Your task to perform on an android device: Clear the shopping cart on target.com. Image 0: 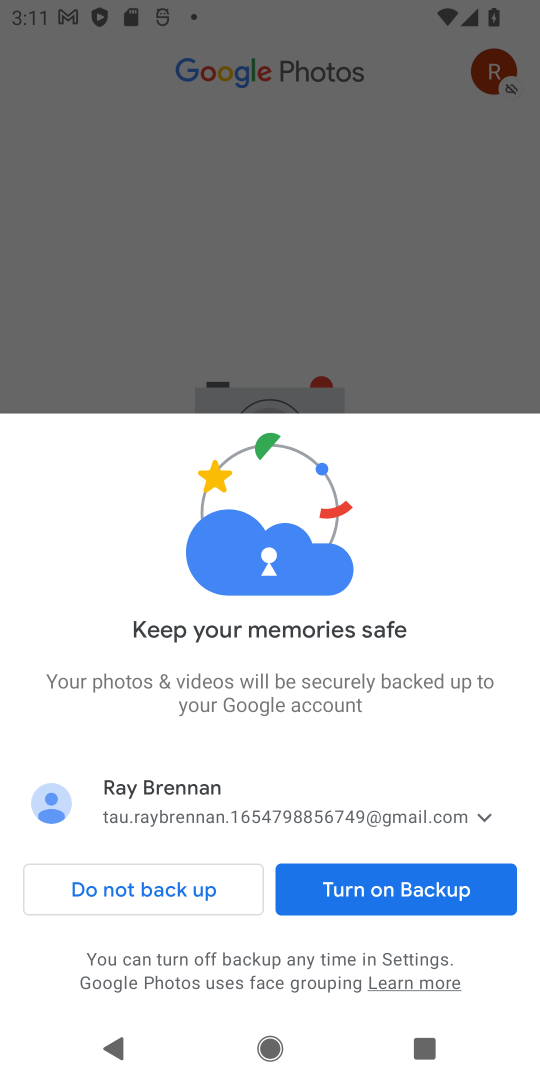
Step 0: press home button
Your task to perform on an android device: Clear the shopping cart on target.com. Image 1: 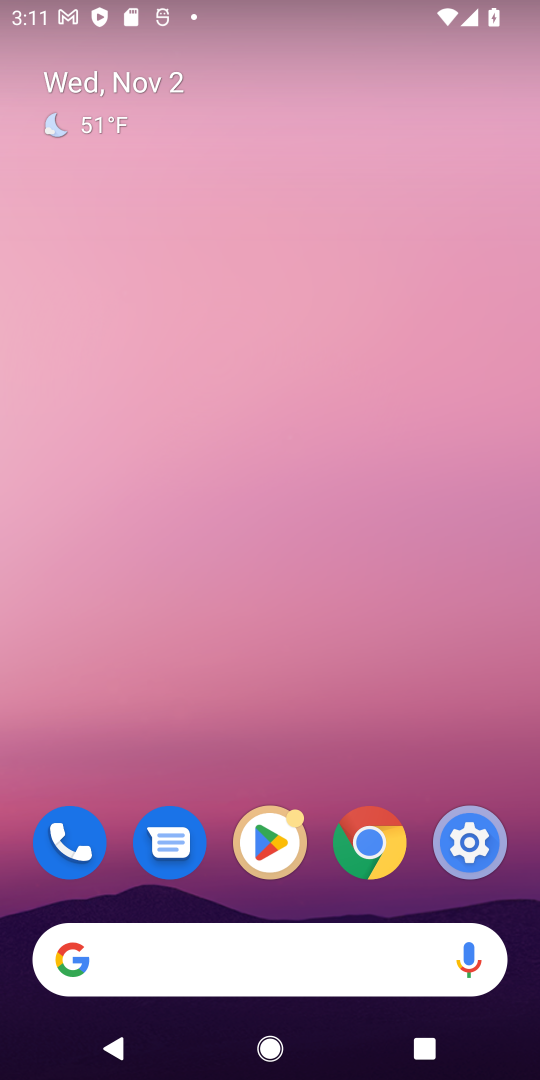
Step 1: click (258, 940)
Your task to perform on an android device: Clear the shopping cart on target.com. Image 2: 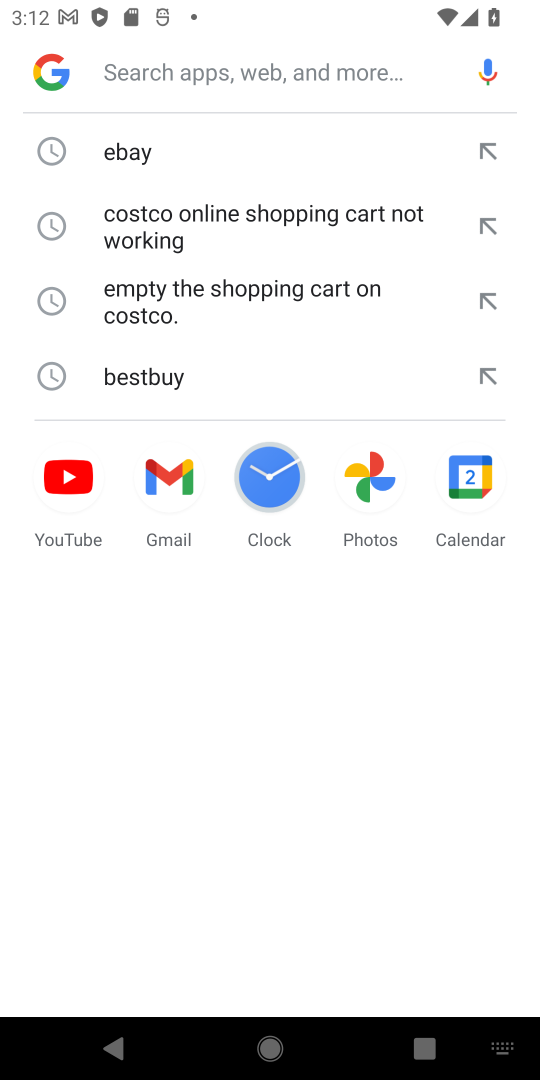
Step 2: type "target"
Your task to perform on an android device: Clear the shopping cart on target.com. Image 3: 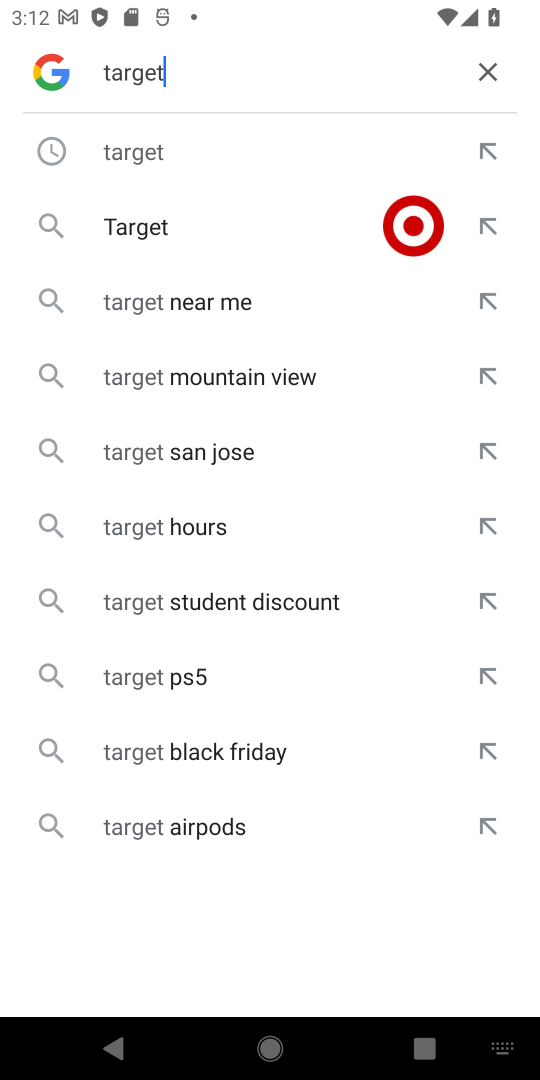
Step 3: click (135, 225)
Your task to perform on an android device: Clear the shopping cart on target.com. Image 4: 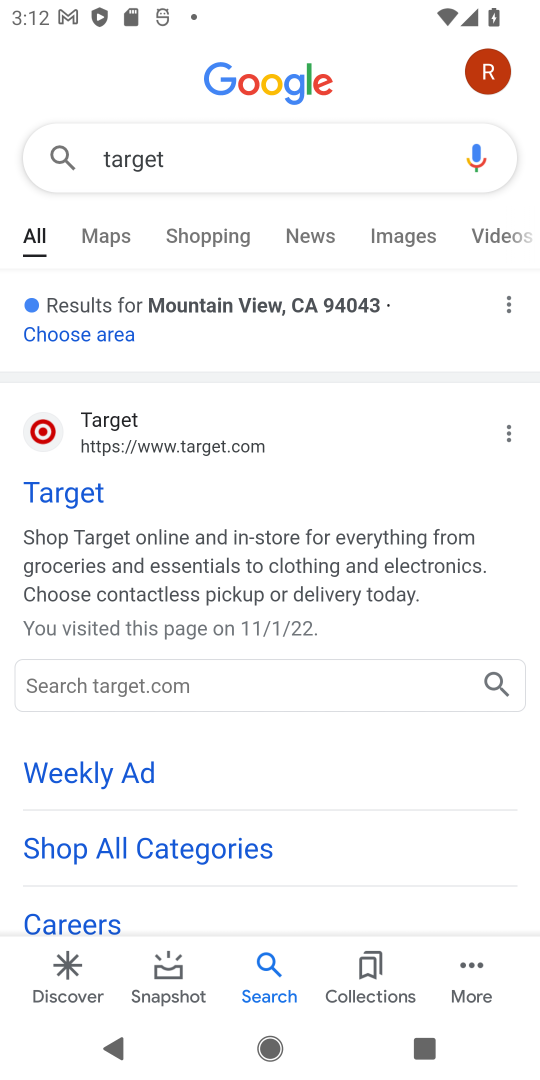
Step 4: click (64, 487)
Your task to perform on an android device: Clear the shopping cart on target.com. Image 5: 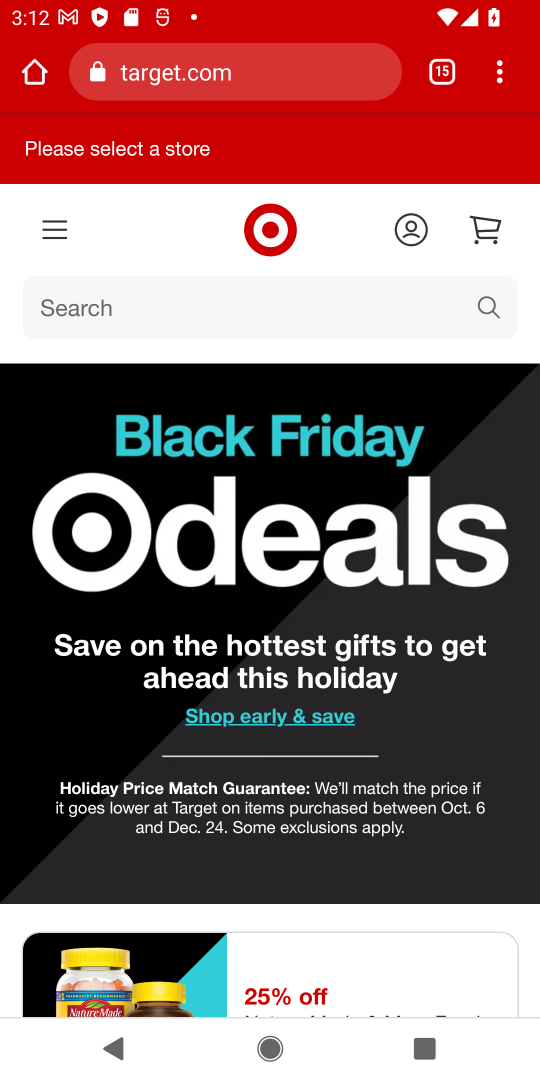
Step 5: click (153, 303)
Your task to perform on an android device: Clear the shopping cart on target.com. Image 6: 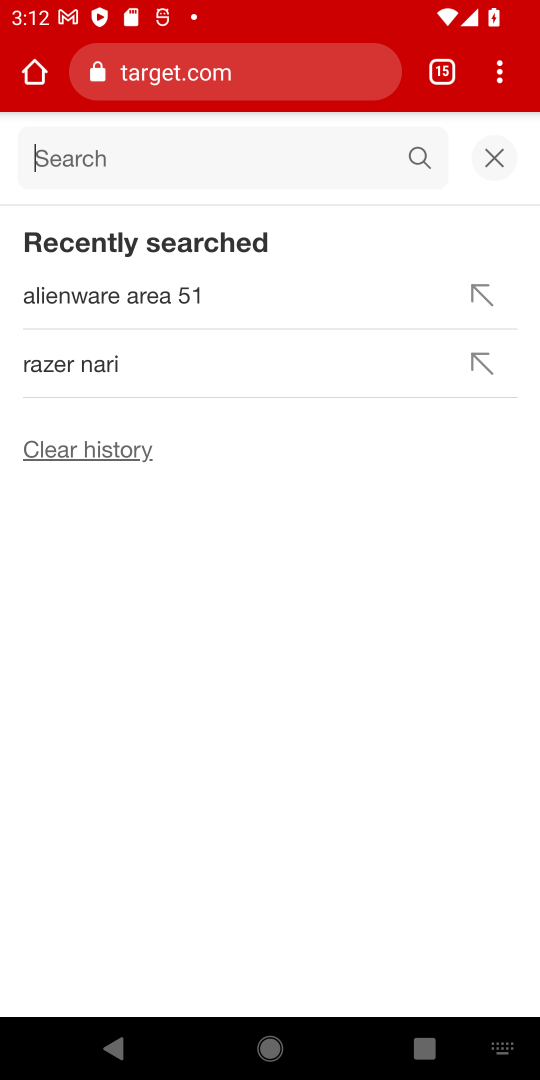
Step 6: click (490, 155)
Your task to perform on an android device: Clear the shopping cart on target.com. Image 7: 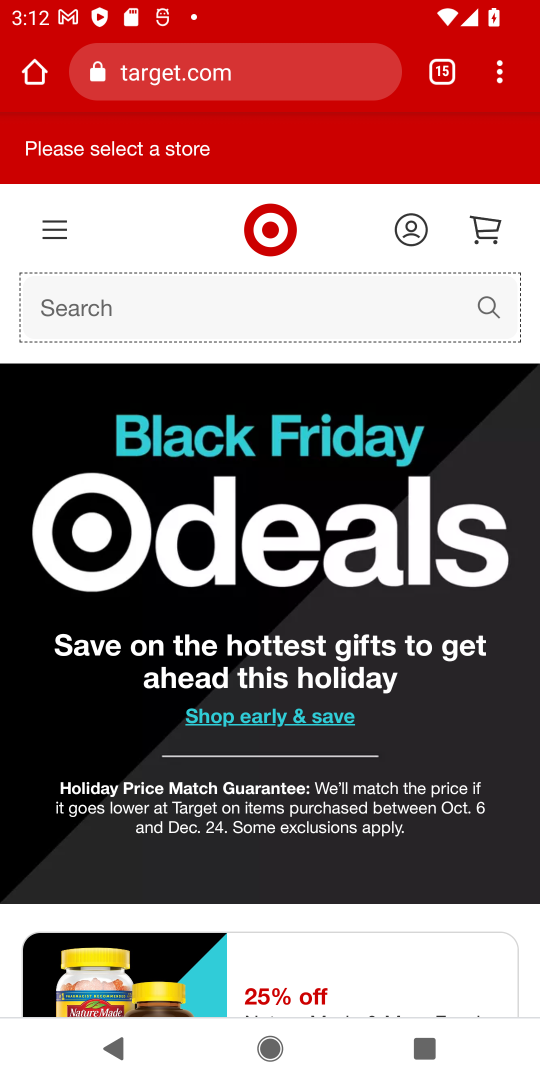
Step 7: task complete